Your task to perform on an android device: open app "Roku - Official Remote Control" (install if not already installed) and enter user name: "autumnal@gmail.com" and password: "stuffing" Image 0: 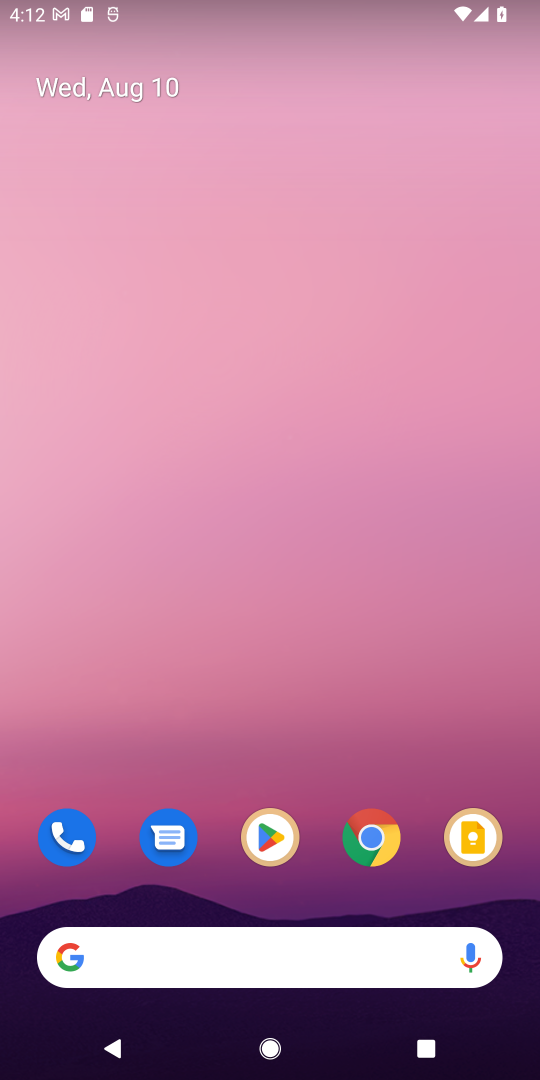
Step 0: click (263, 846)
Your task to perform on an android device: open app "Roku - Official Remote Control" (install if not already installed) and enter user name: "autumnal@gmail.com" and password: "stuffing" Image 1: 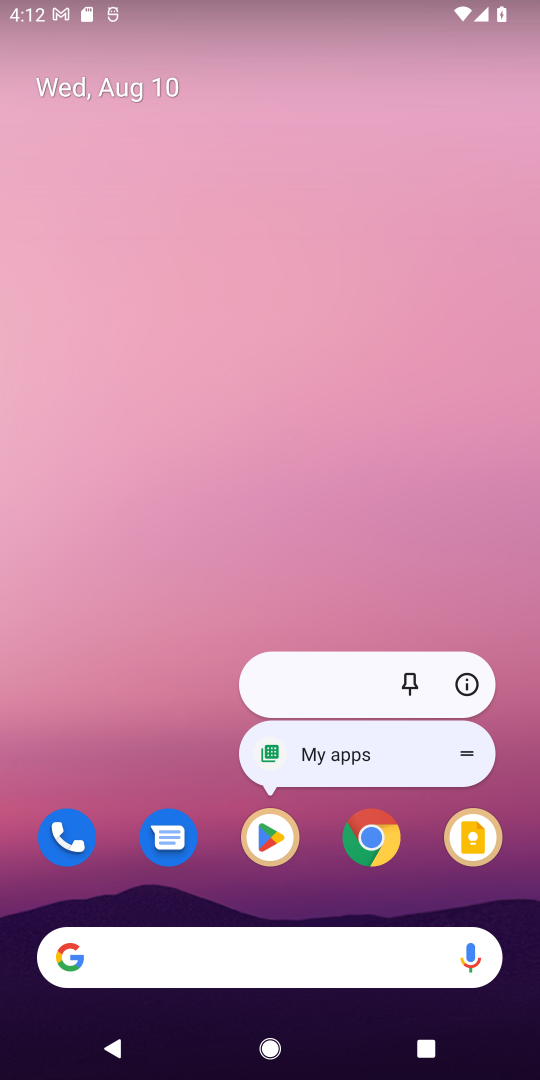
Step 1: click (271, 836)
Your task to perform on an android device: open app "Roku - Official Remote Control" (install if not already installed) and enter user name: "autumnal@gmail.com" and password: "stuffing" Image 2: 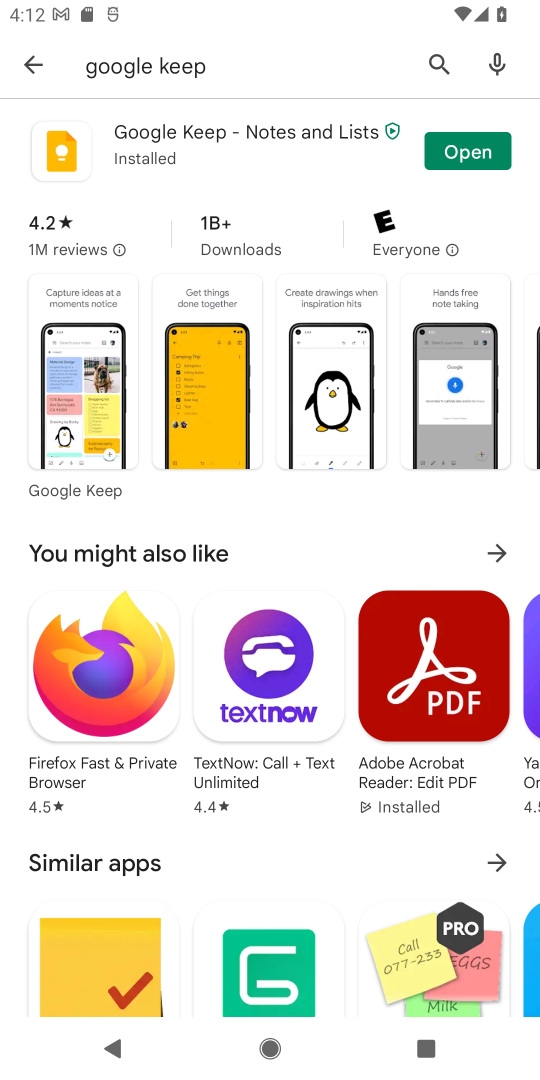
Step 2: click (428, 55)
Your task to perform on an android device: open app "Roku - Official Remote Control" (install if not already installed) and enter user name: "autumnal@gmail.com" and password: "stuffing" Image 3: 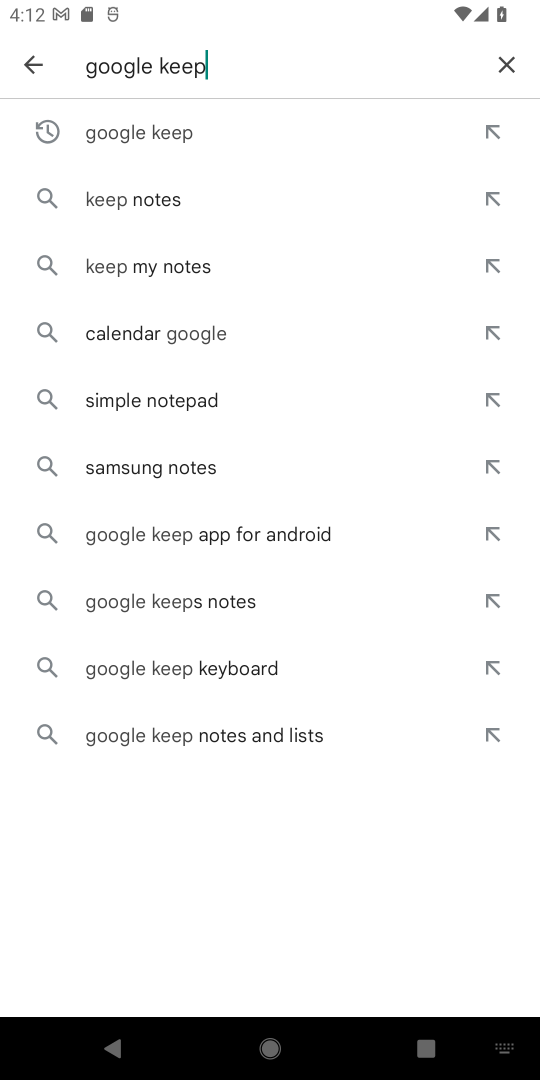
Step 3: click (505, 41)
Your task to perform on an android device: open app "Roku - Official Remote Control" (install if not already installed) and enter user name: "autumnal@gmail.com" and password: "stuffing" Image 4: 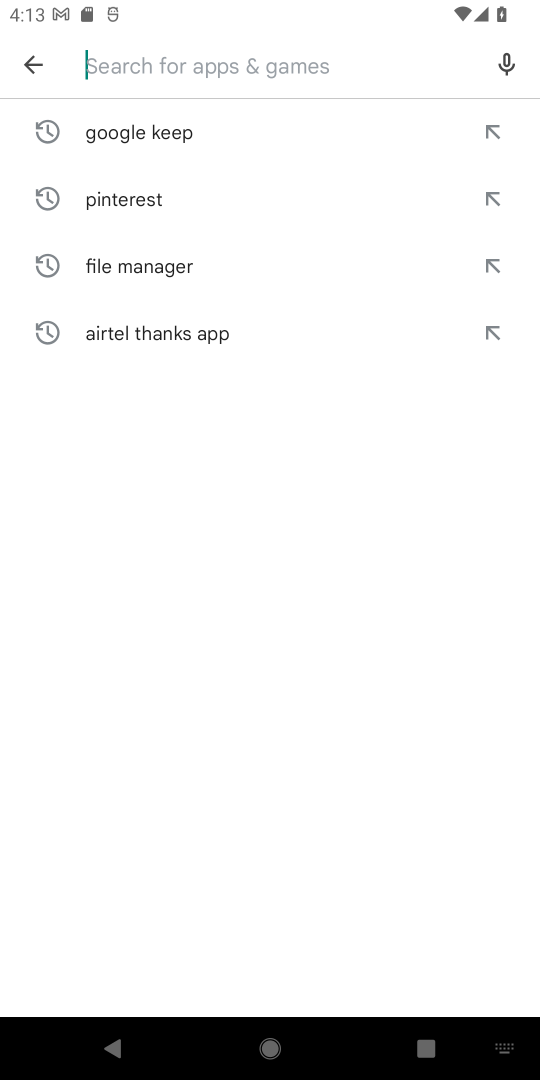
Step 4: type "Roku - Official Remote Control"
Your task to perform on an android device: open app "Roku - Official Remote Control" (install if not already installed) and enter user name: "autumnal@gmail.com" and password: "stuffing" Image 5: 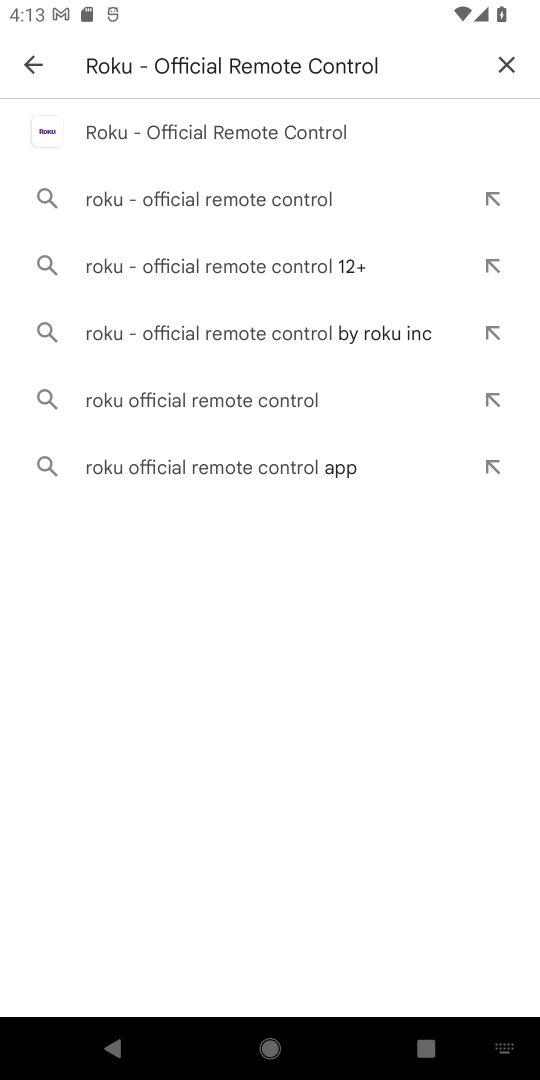
Step 5: click (218, 126)
Your task to perform on an android device: open app "Roku - Official Remote Control" (install if not already installed) and enter user name: "autumnal@gmail.com" and password: "stuffing" Image 6: 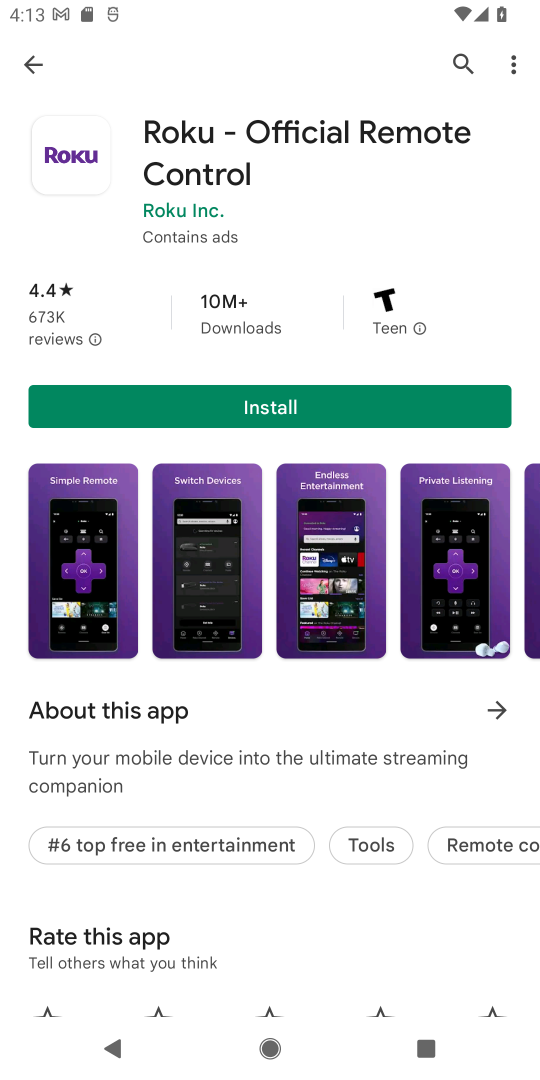
Step 6: click (269, 403)
Your task to perform on an android device: open app "Roku - Official Remote Control" (install if not already installed) and enter user name: "autumnal@gmail.com" and password: "stuffing" Image 7: 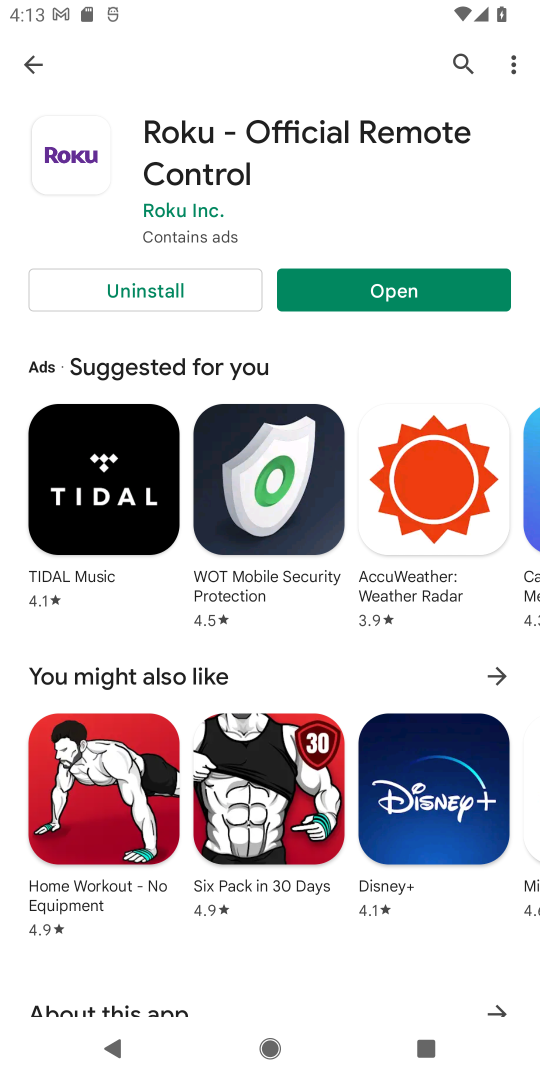
Step 7: click (367, 287)
Your task to perform on an android device: open app "Roku - Official Remote Control" (install if not already installed) and enter user name: "autumnal@gmail.com" and password: "stuffing" Image 8: 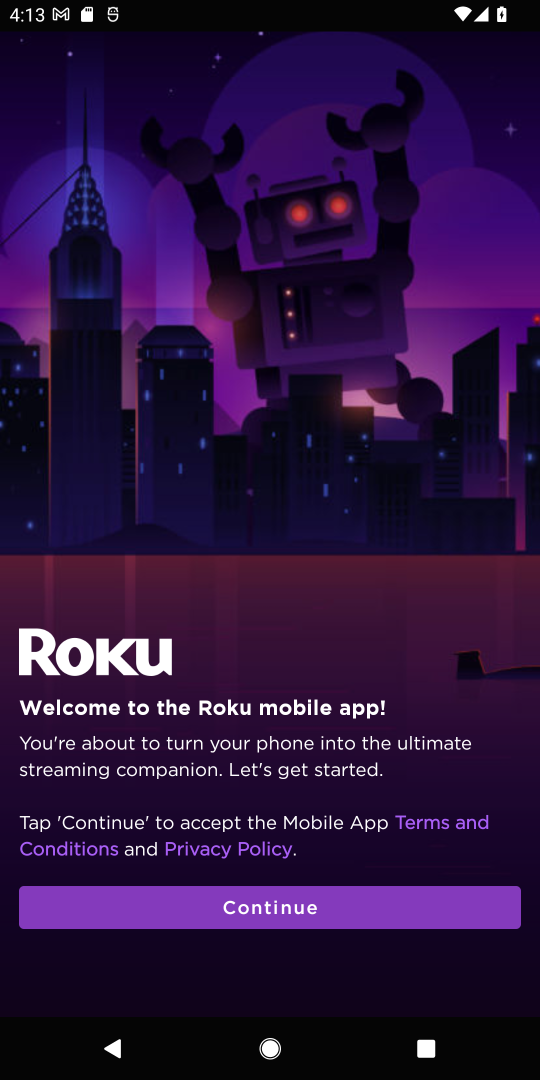
Step 8: click (277, 900)
Your task to perform on an android device: open app "Roku - Official Remote Control" (install if not already installed) and enter user name: "autumnal@gmail.com" and password: "stuffing" Image 9: 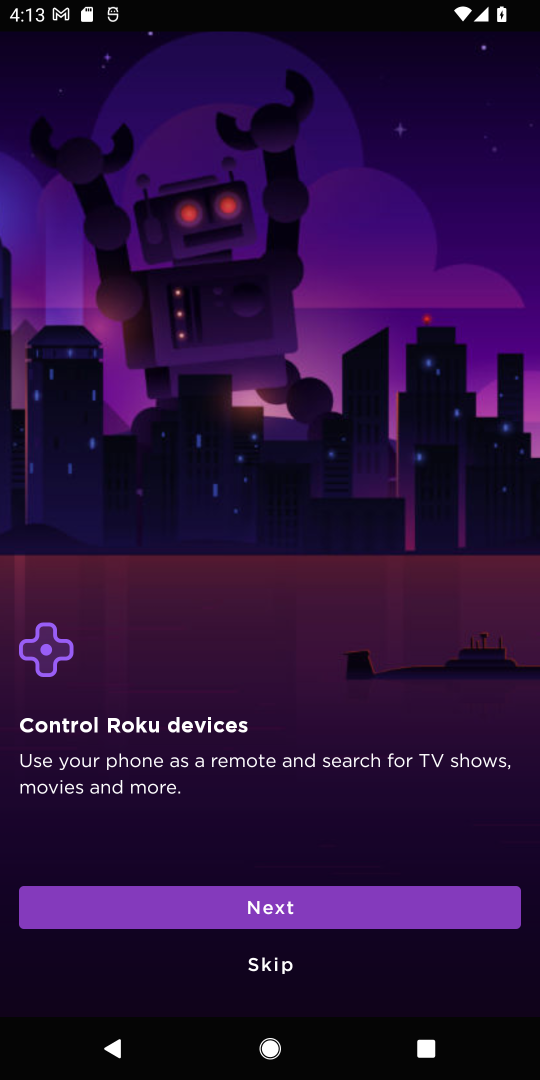
Step 9: click (299, 912)
Your task to perform on an android device: open app "Roku - Official Remote Control" (install if not already installed) and enter user name: "autumnal@gmail.com" and password: "stuffing" Image 10: 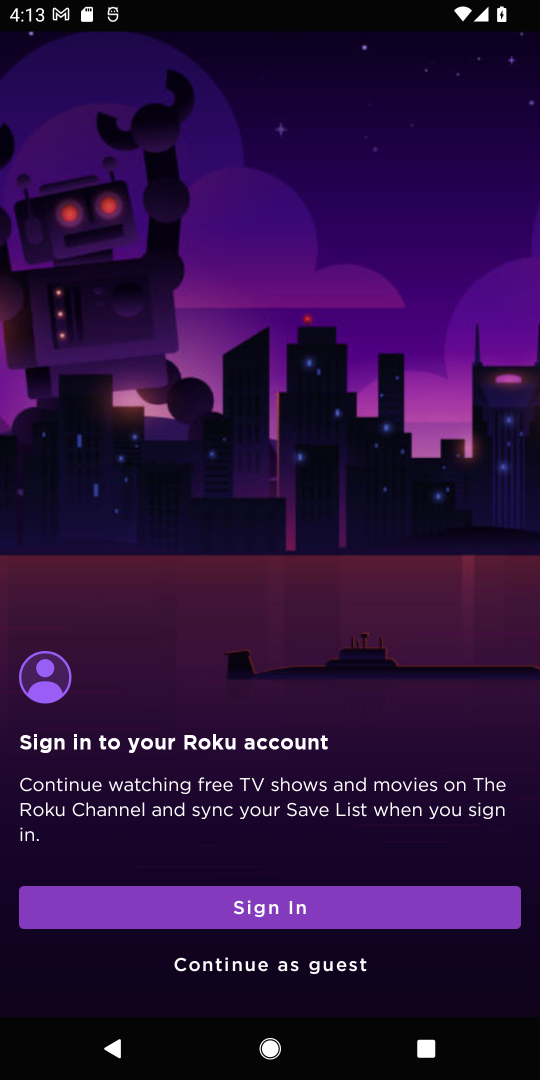
Step 10: click (299, 912)
Your task to perform on an android device: open app "Roku - Official Remote Control" (install if not already installed) and enter user name: "autumnal@gmail.com" and password: "stuffing" Image 11: 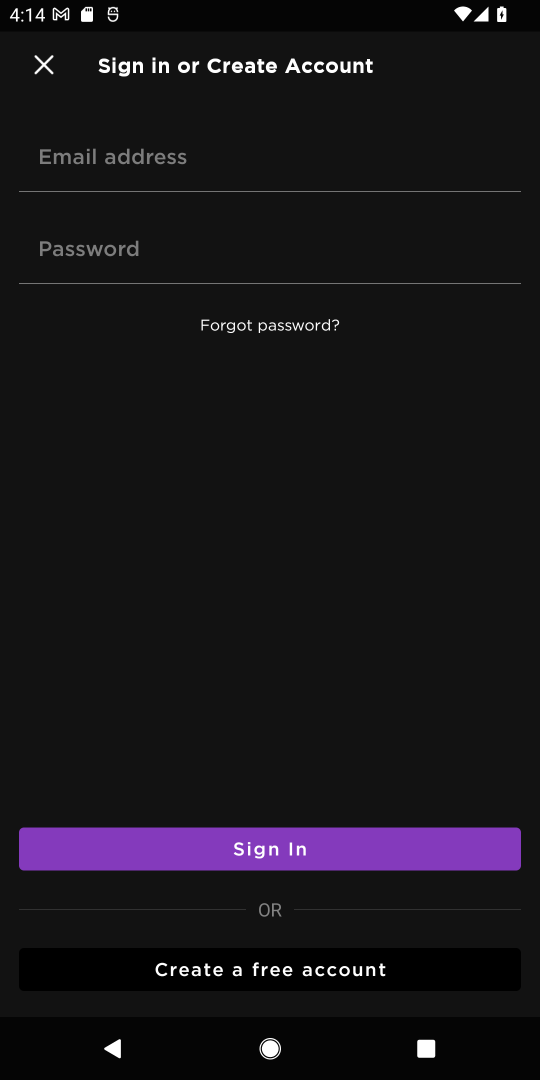
Step 11: click (63, 150)
Your task to perform on an android device: open app "Roku - Official Remote Control" (install if not already installed) and enter user name: "autumnal@gmail.com" and password: "stuffing" Image 12: 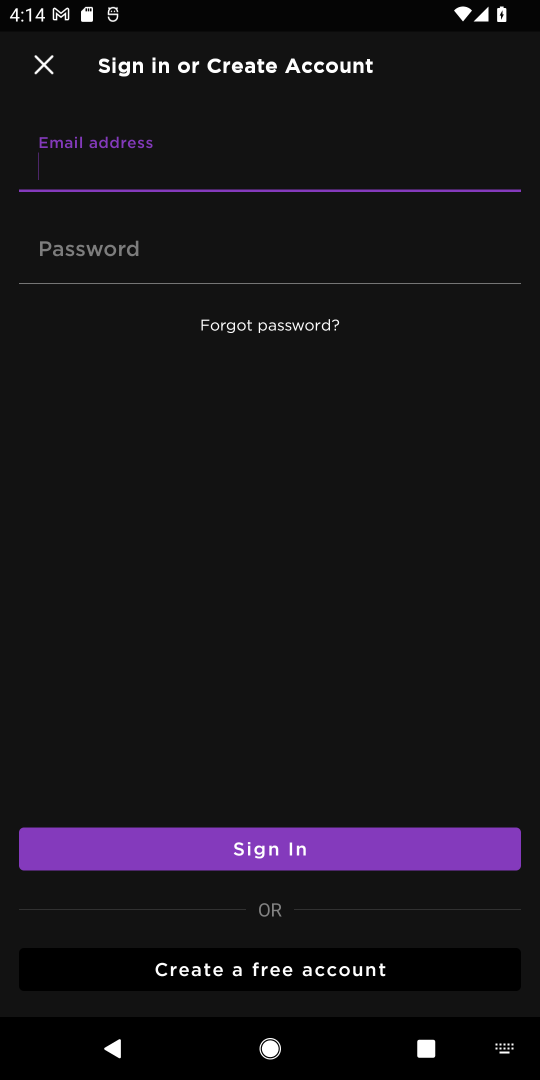
Step 12: type "autumnal@gmail.com"
Your task to perform on an android device: open app "Roku - Official Remote Control" (install if not already installed) and enter user name: "autumnal@gmail.com" and password: "stuffing" Image 13: 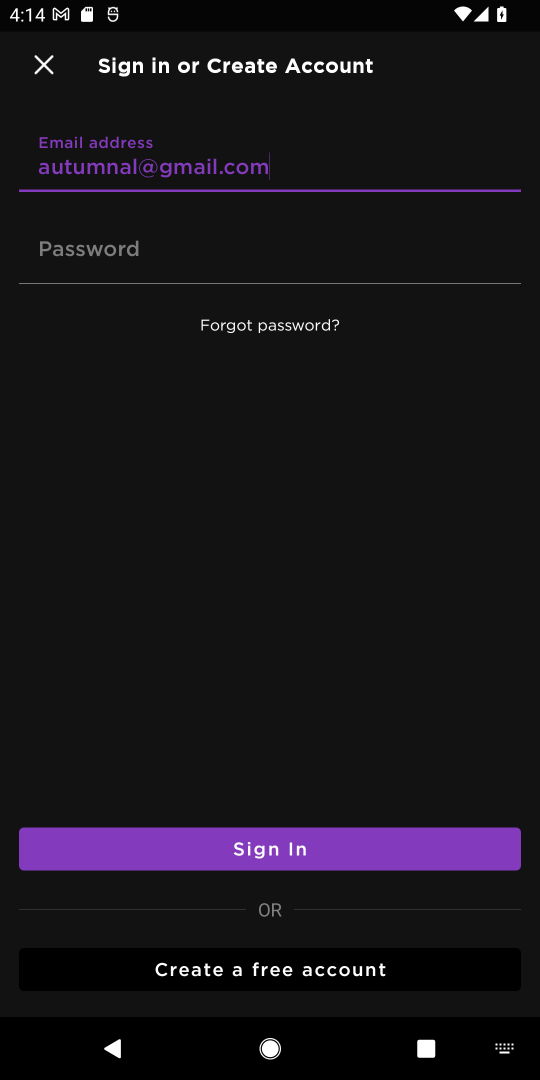
Step 13: click (75, 243)
Your task to perform on an android device: open app "Roku - Official Remote Control" (install if not already installed) and enter user name: "autumnal@gmail.com" and password: "stuffing" Image 14: 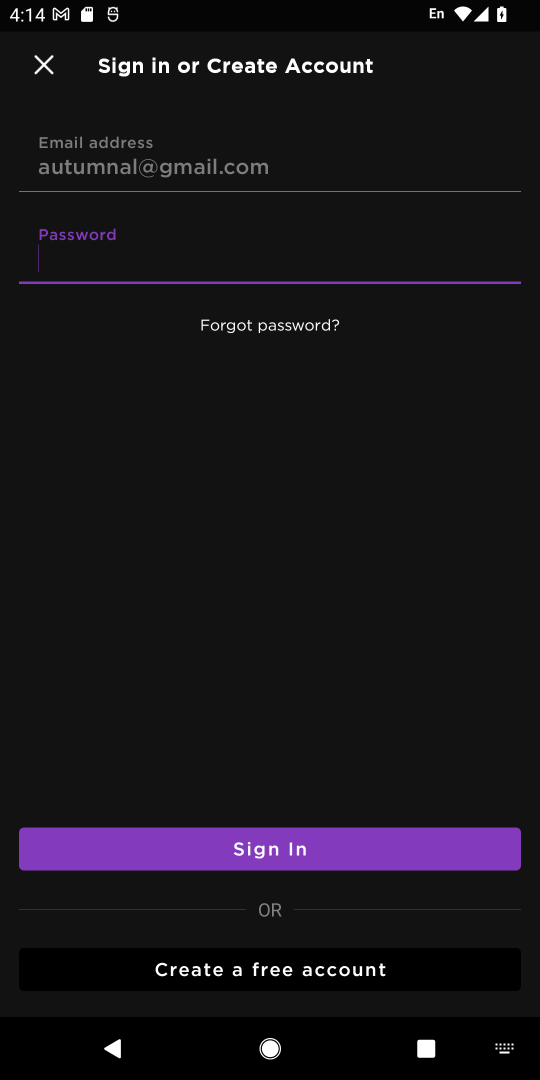
Step 14: type "stuffing"
Your task to perform on an android device: open app "Roku - Official Remote Control" (install if not already installed) and enter user name: "autumnal@gmail.com" and password: "stuffing" Image 15: 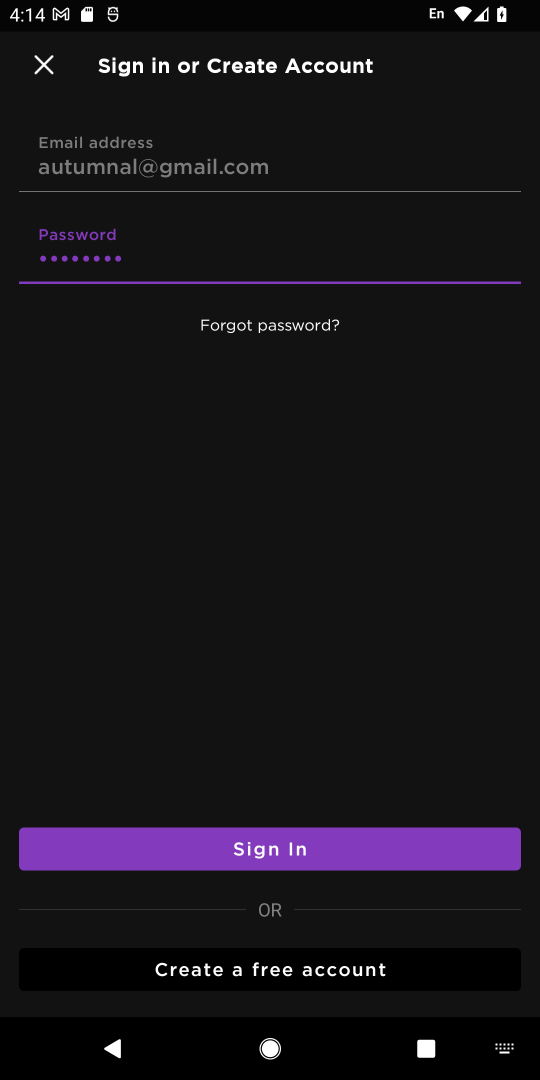
Step 15: task complete